Your task to perform on an android device: Search for Italian restaurants on Maps Image 0: 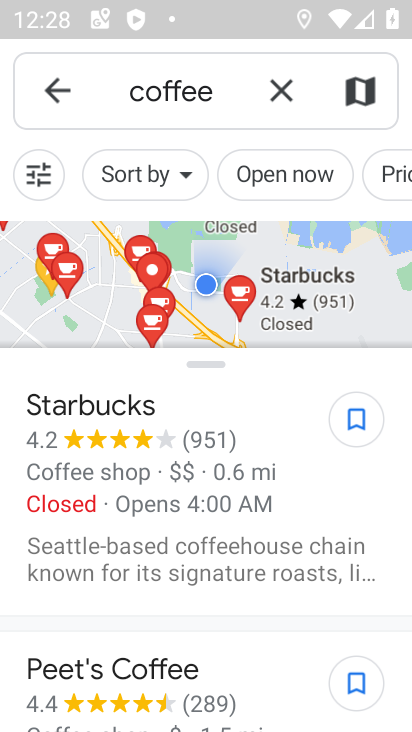
Step 0: click (274, 96)
Your task to perform on an android device: Search for Italian restaurants on Maps Image 1: 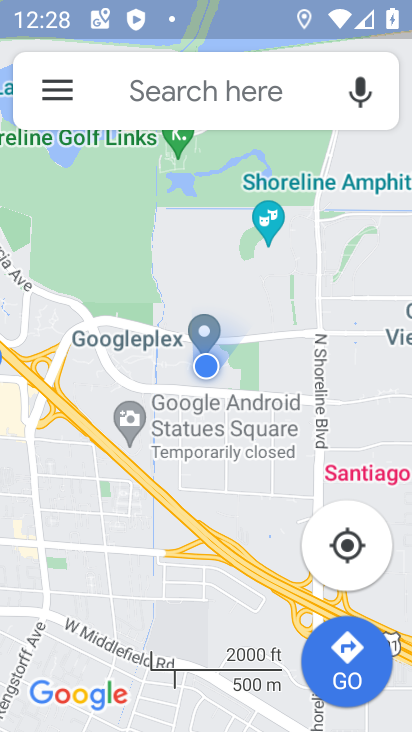
Step 1: click (252, 97)
Your task to perform on an android device: Search for Italian restaurants on Maps Image 2: 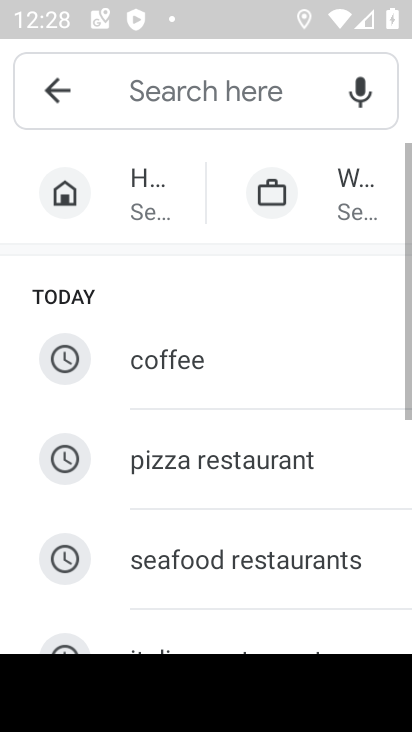
Step 2: drag from (255, 533) to (215, 187)
Your task to perform on an android device: Search for Italian restaurants on Maps Image 3: 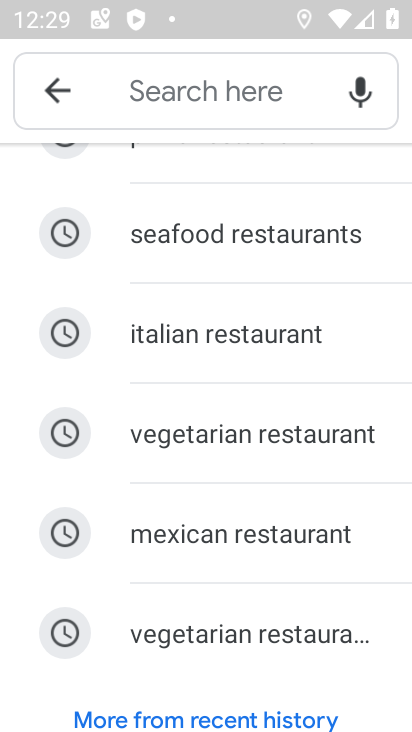
Step 3: click (255, 320)
Your task to perform on an android device: Search for Italian restaurants on Maps Image 4: 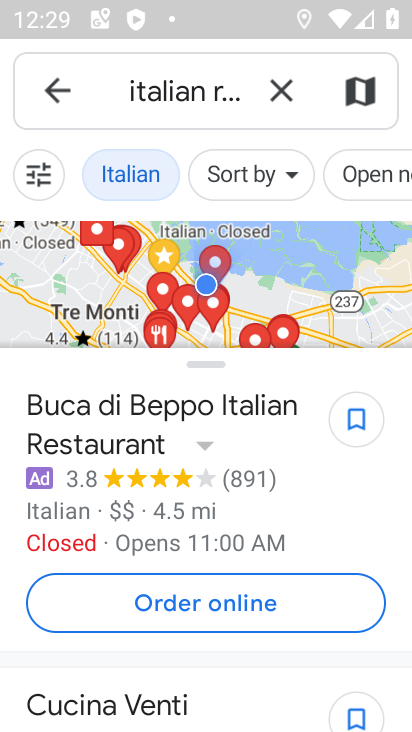
Step 4: task complete